Your task to perform on an android device: add a contact in the contacts app Image 0: 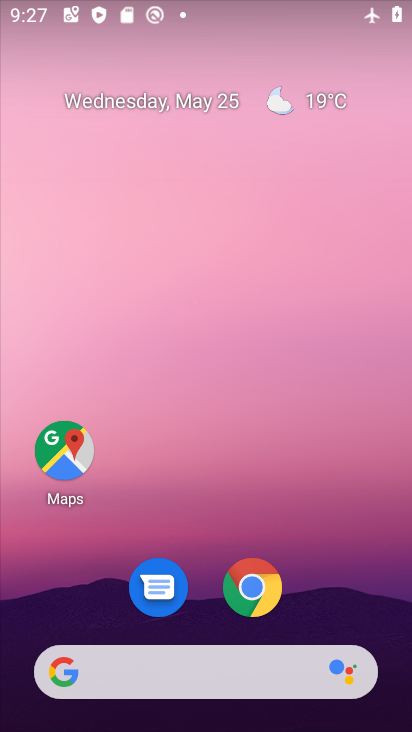
Step 0: drag from (382, 622) to (343, 104)
Your task to perform on an android device: add a contact in the contacts app Image 1: 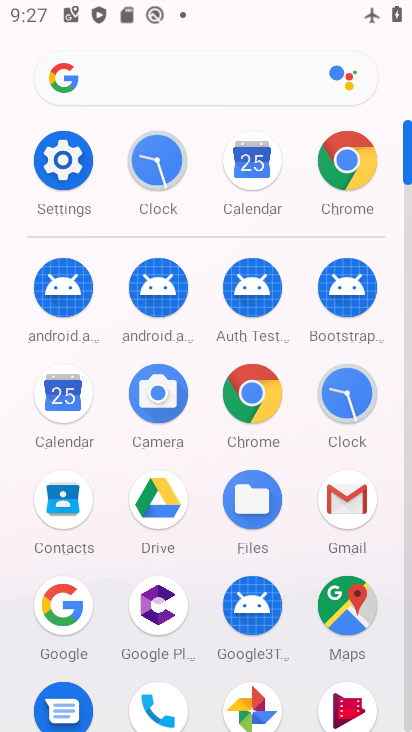
Step 1: click (408, 714)
Your task to perform on an android device: add a contact in the contacts app Image 2: 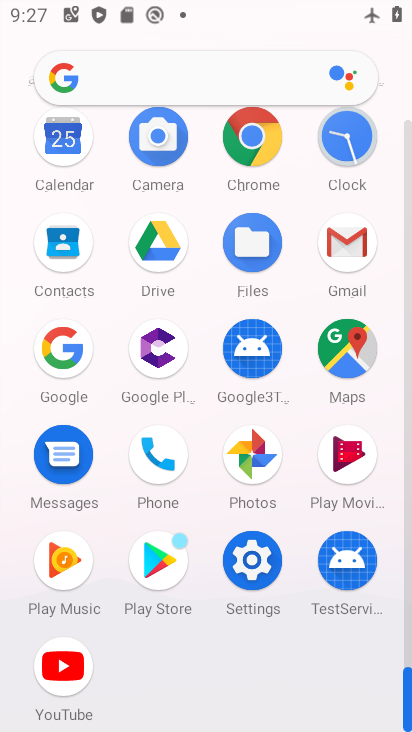
Step 2: click (57, 245)
Your task to perform on an android device: add a contact in the contacts app Image 3: 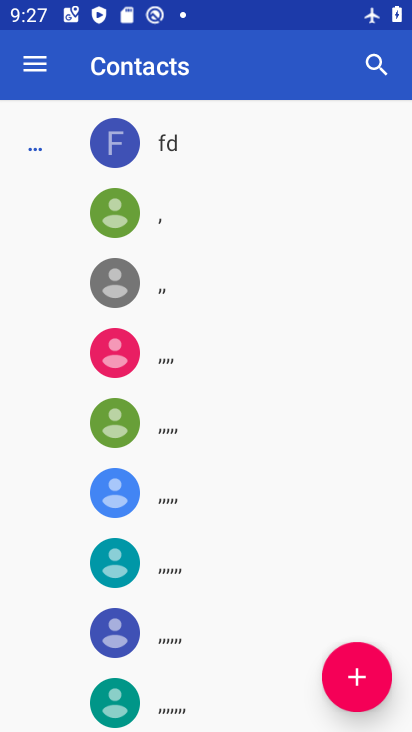
Step 3: click (353, 665)
Your task to perform on an android device: add a contact in the contacts app Image 4: 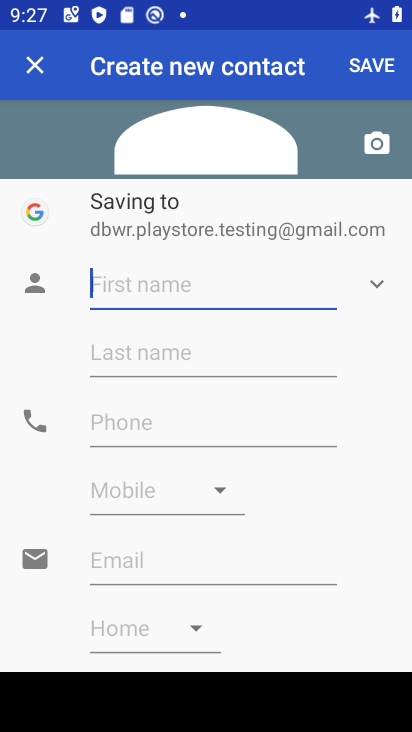
Step 4: type "ouiuytrew"
Your task to perform on an android device: add a contact in the contacts app Image 5: 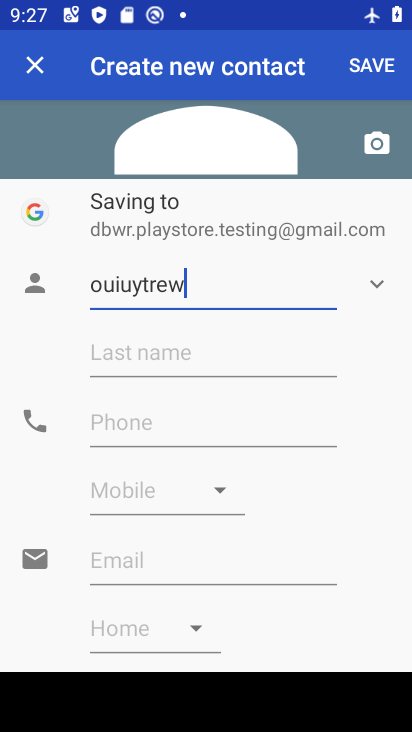
Step 5: click (133, 424)
Your task to perform on an android device: add a contact in the contacts app Image 6: 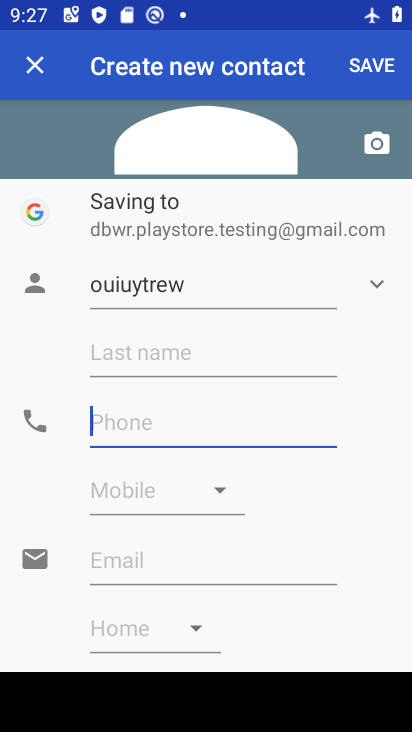
Step 6: type "08976546"
Your task to perform on an android device: add a contact in the contacts app Image 7: 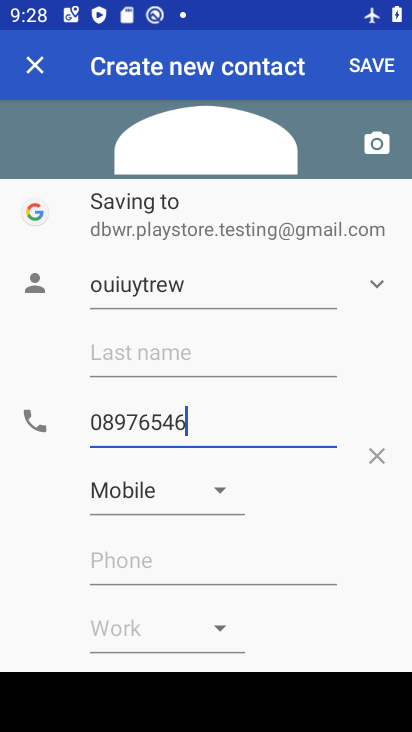
Step 7: click (225, 492)
Your task to perform on an android device: add a contact in the contacts app Image 8: 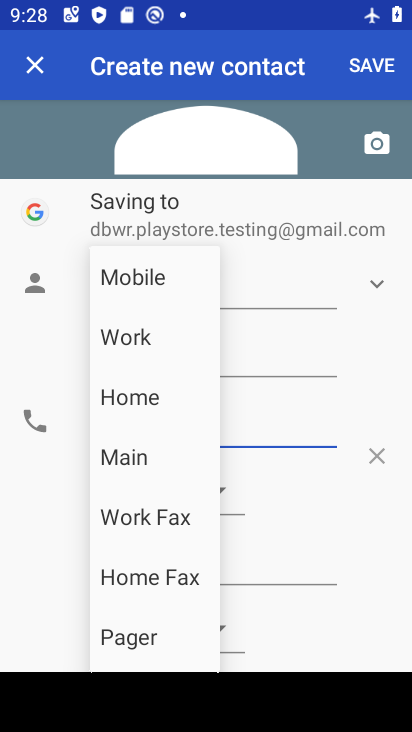
Step 8: click (117, 332)
Your task to perform on an android device: add a contact in the contacts app Image 9: 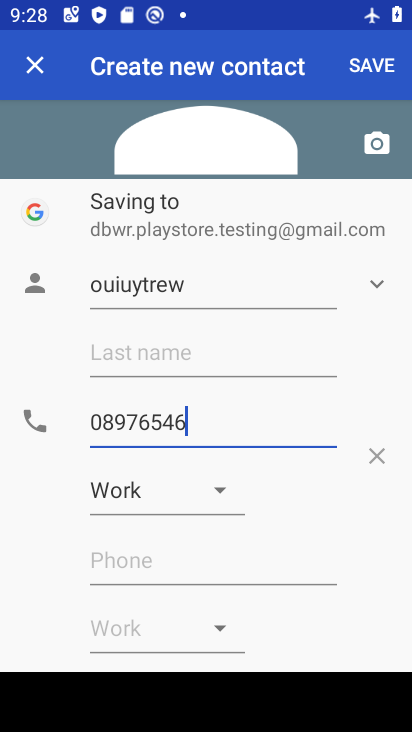
Step 9: click (371, 58)
Your task to perform on an android device: add a contact in the contacts app Image 10: 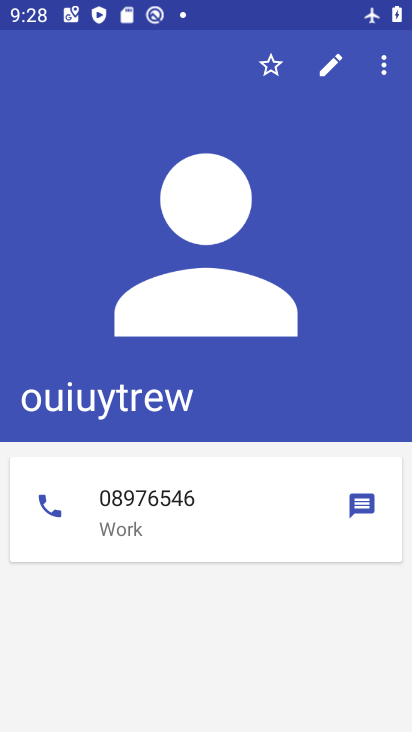
Step 10: task complete